Your task to perform on an android device: See recent photos Image 0: 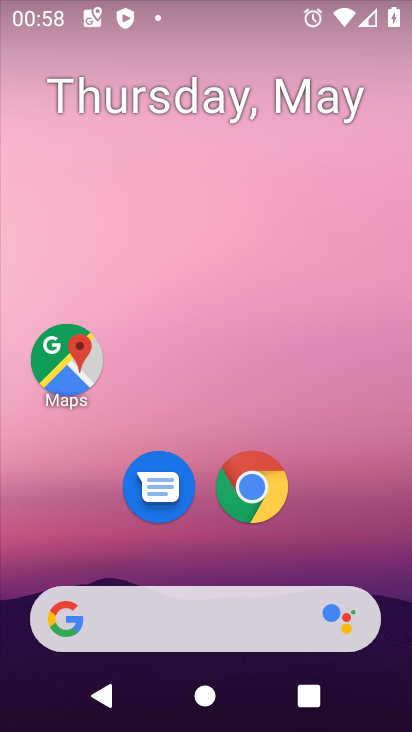
Step 0: drag from (364, 555) to (326, 26)
Your task to perform on an android device: See recent photos Image 1: 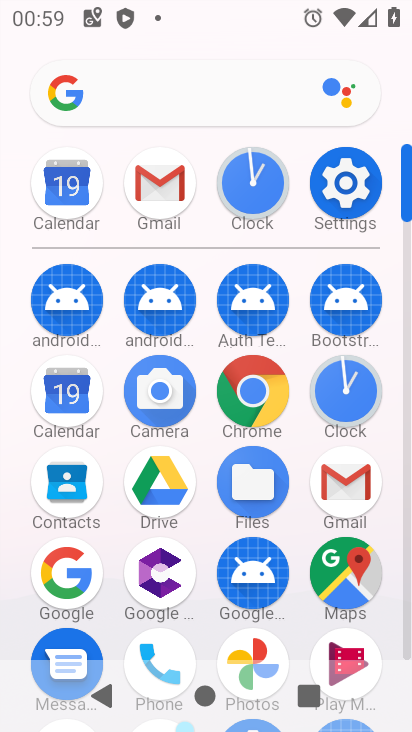
Step 1: drag from (409, 555) to (405, 511)
Your task to perform on an android device: See recent photos Image 2: 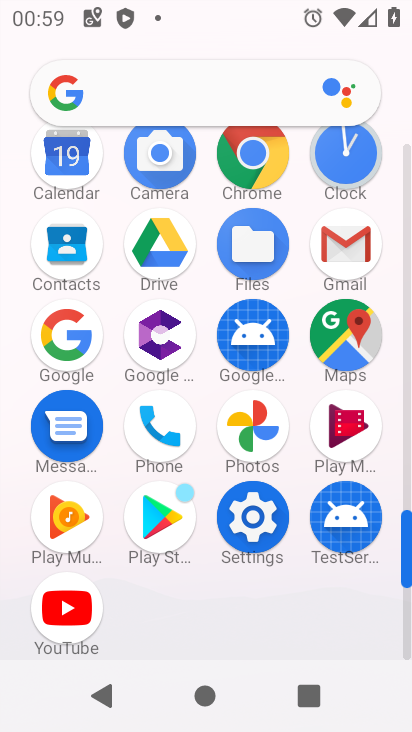
Step 2: click (254, 437)
Your task to perform on an android device: See recent photos Image 3: 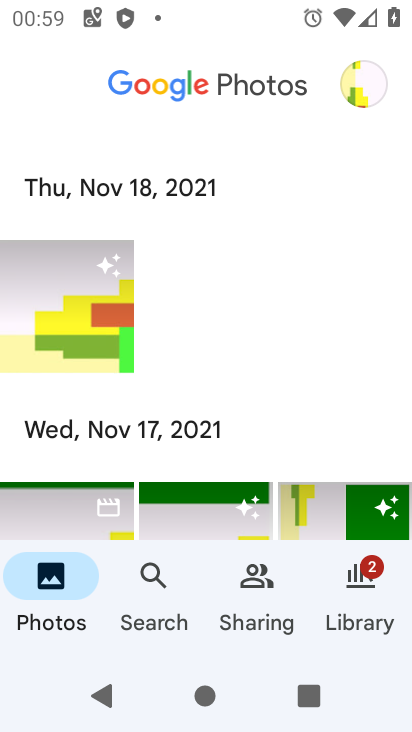
Step 3: click (358, 620)
Your task to perform on an android device: See recent photos Image 4: 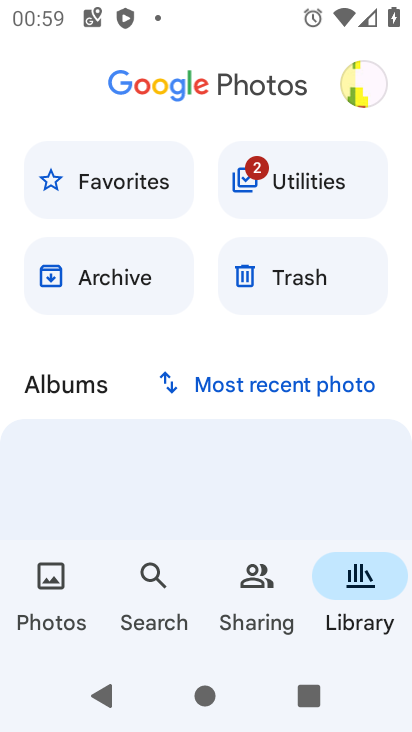
Step 4: click (297, 389)
Your task to perform on an android device: See recent photos Image 5: 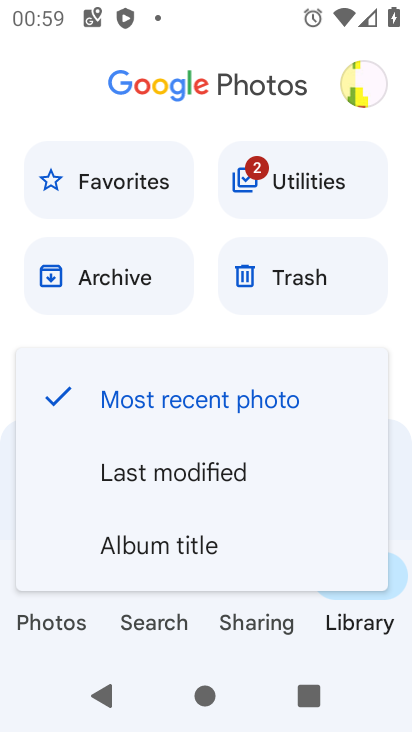
Step 5: click (219, 403)
Your task to perform on an android device: See recent photos Image 6: 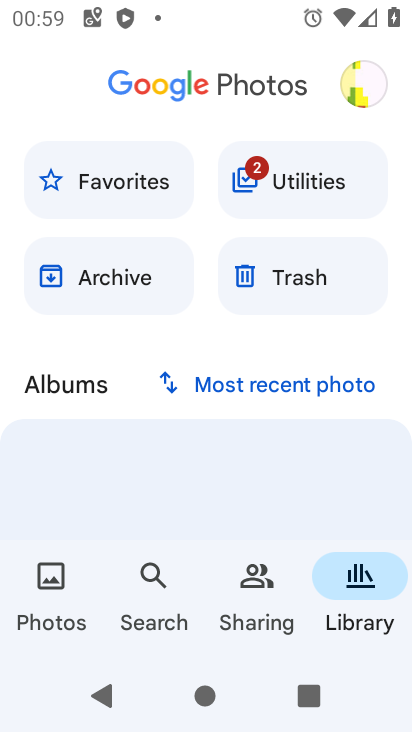
Step 6: task complete